Your task to perform on an android device: change your default location settings in chrome Image 0: 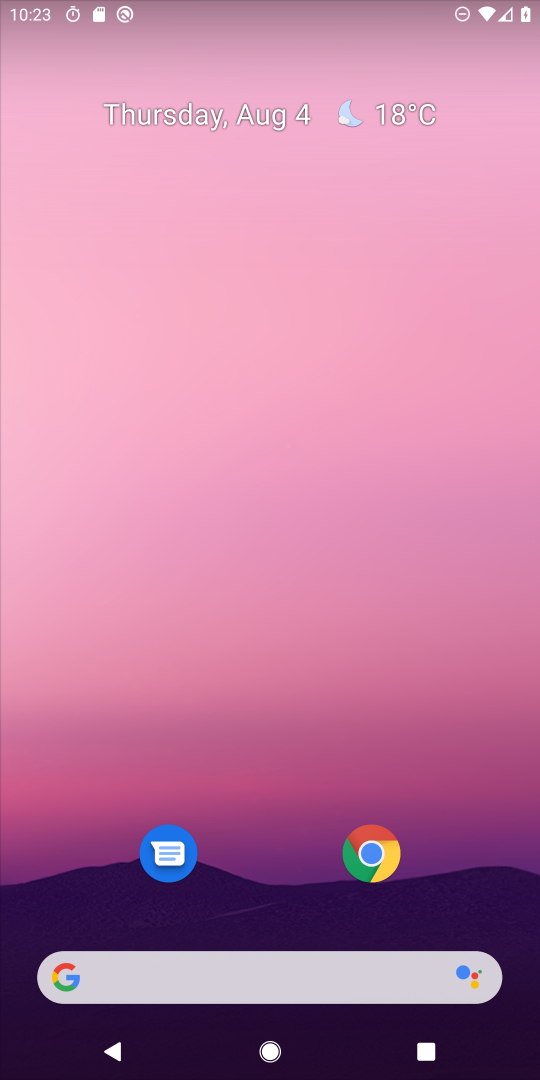
Step 0: click (394, 824)
Your task to perform on an android device: change your default location settings in chrome Image 1: 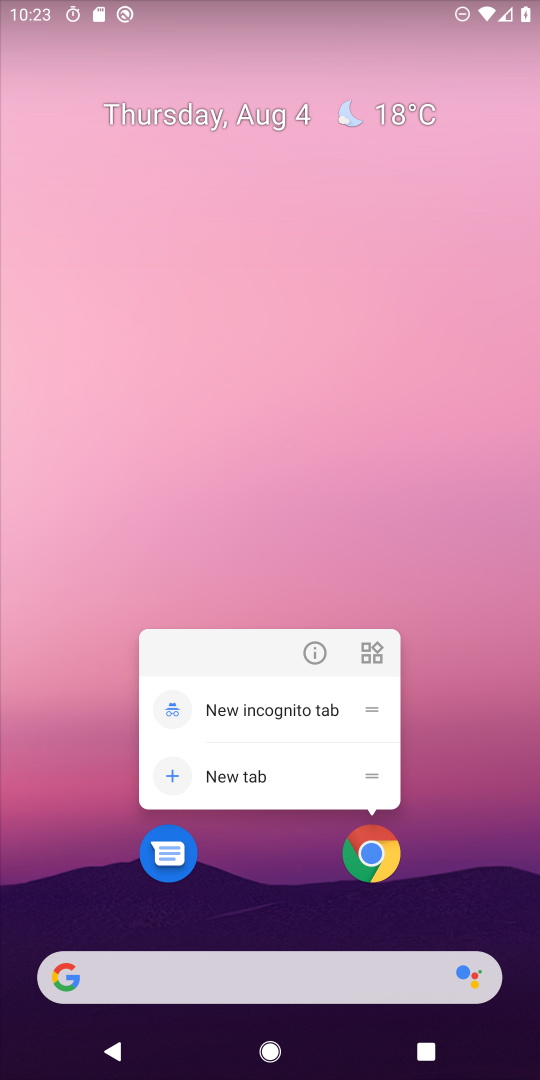
Step 1: click (375, 840)
Your task to perform on an android device: change your default location settings in chrome Image 2: 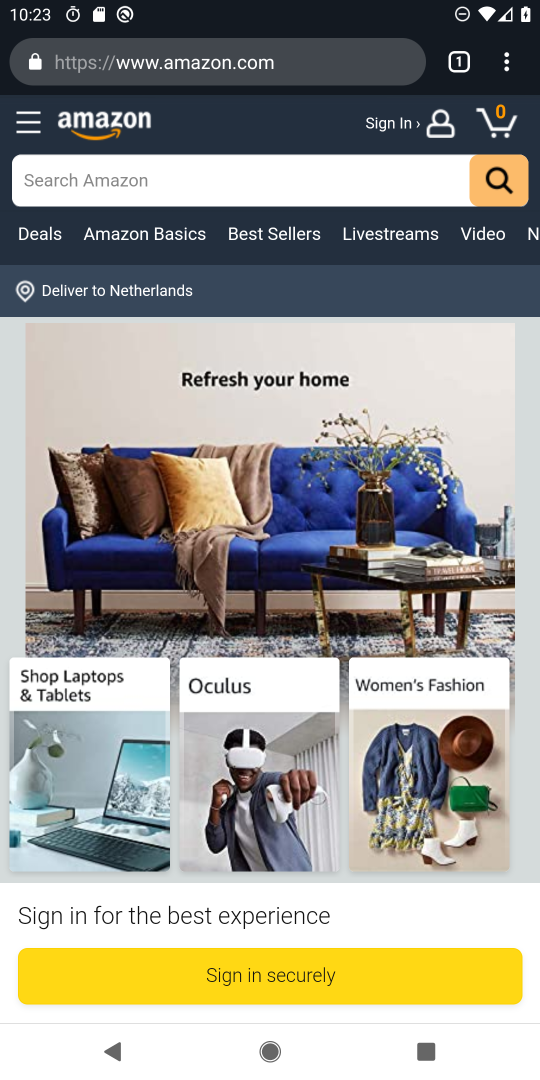
Step 2: click (513, 72)
Your task to perform on an android device: change your default location settings in chrome Image 3: 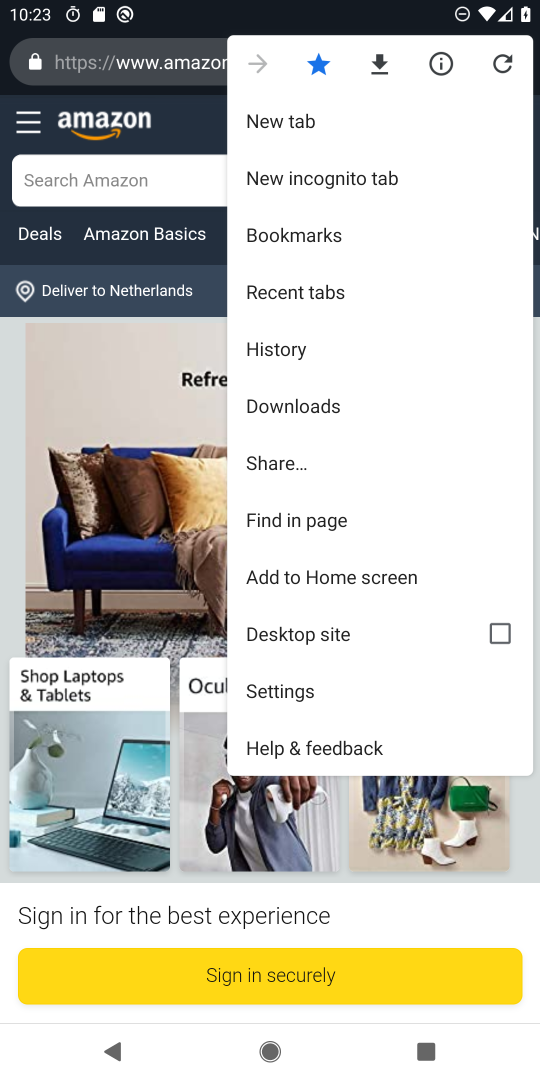
Step 3: click (295, 694)
Your task to perform on an android device: change your default location settings in chrome Image 4: 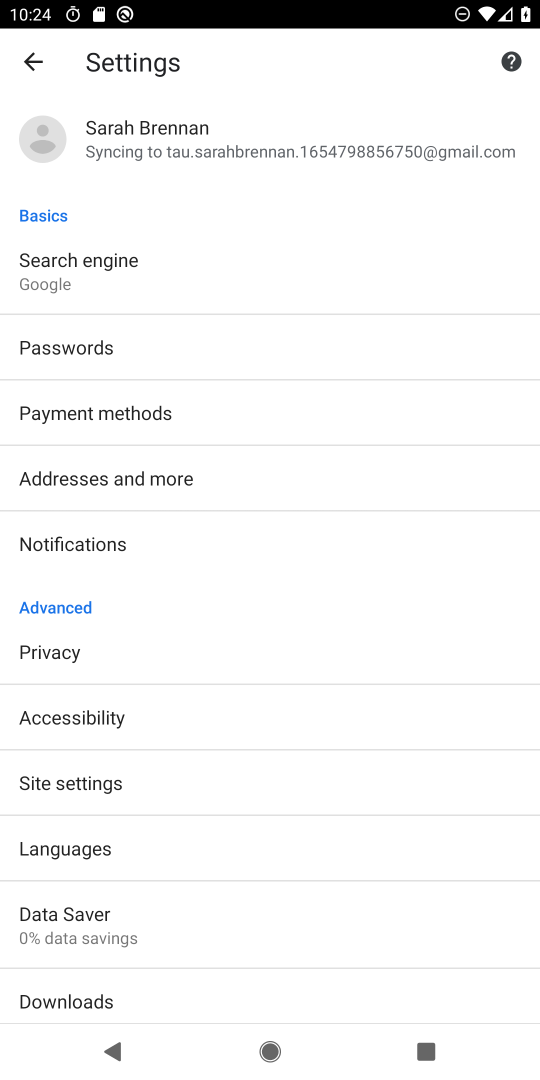
Step 4: click (126, 781)
Your task to perform on an android device: change your default location settings in chrome Image 5: 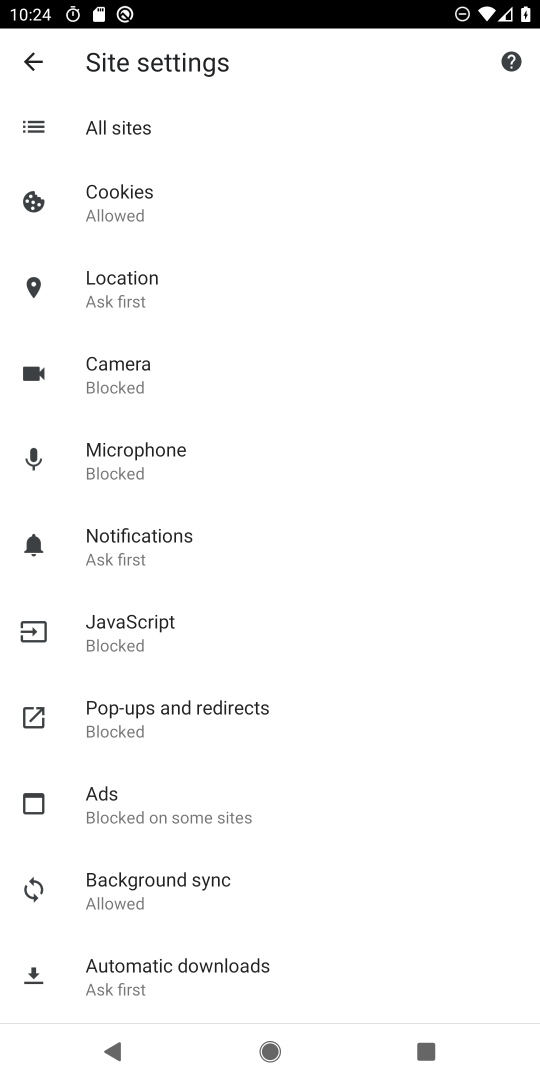
Step 5: click (131, 279)
Your task to perform on an android device: change your default location settings in chrome Image 6: 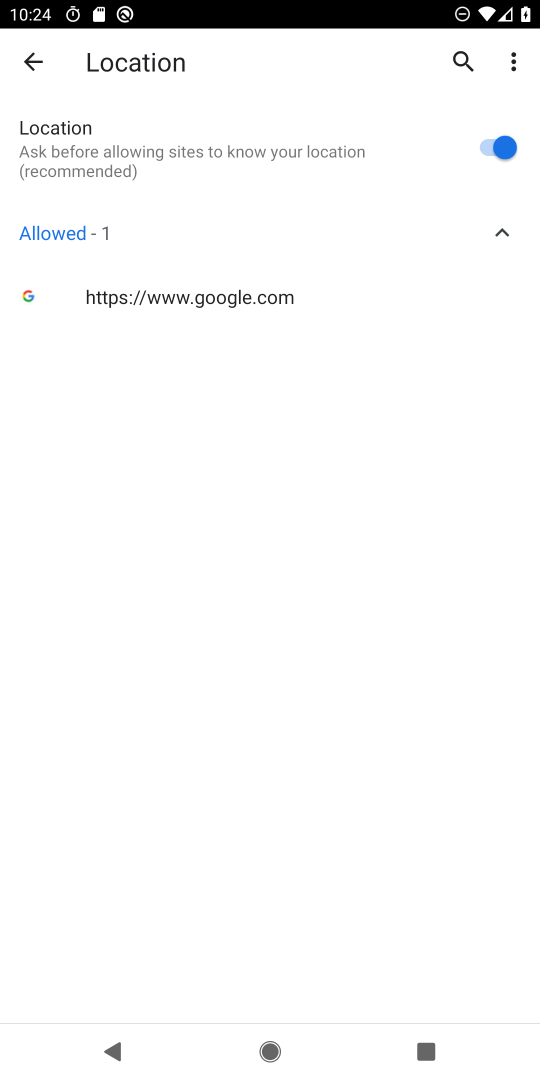
Step 6: click (468, 136)
Your task to perform on an android device: change your default location settings in chrome Image 7: 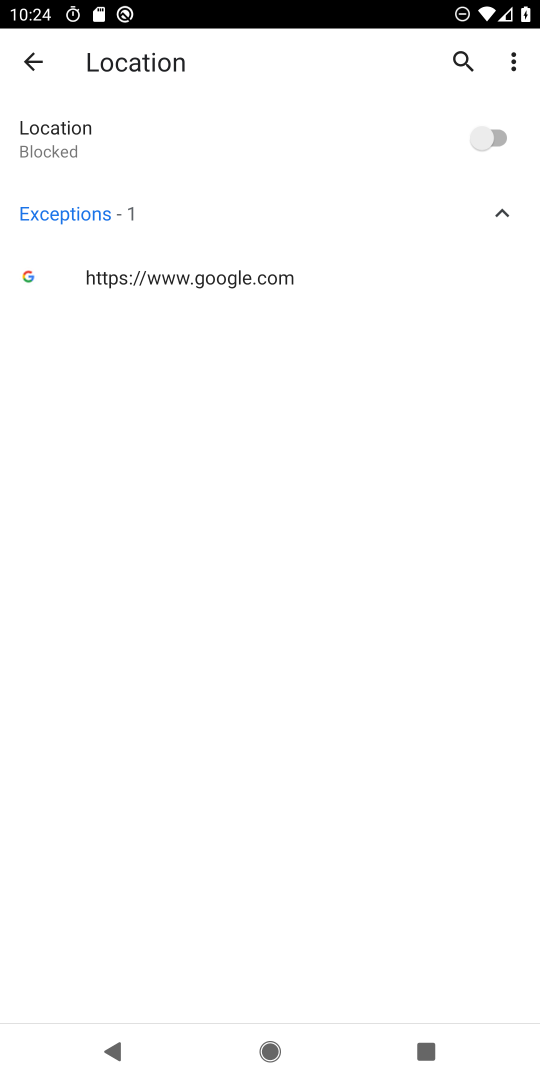
Step 7: task complete